Your task to perform on an android device: turn off wifi Image 0: 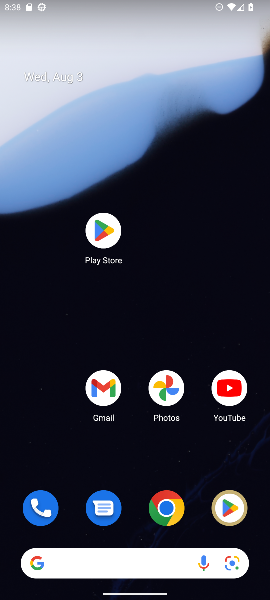
Step 0: drag from (143, 531) to (162, 84)
Your task to perform on an android device: turn off wifi Image 1: 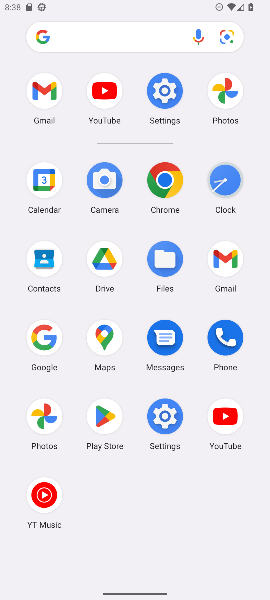
Step 1: click (207, 420)
Your task to perform on an android device: turn off wifi Image 2: 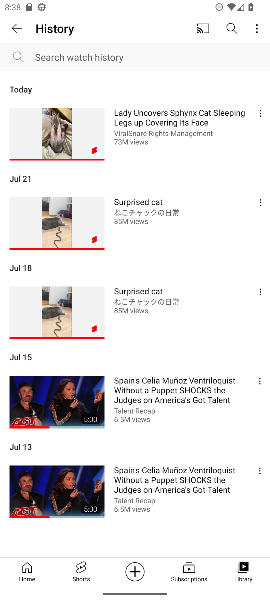
Step 2: press back button
Your task to perform on an android device: turn off wifi Image 3: 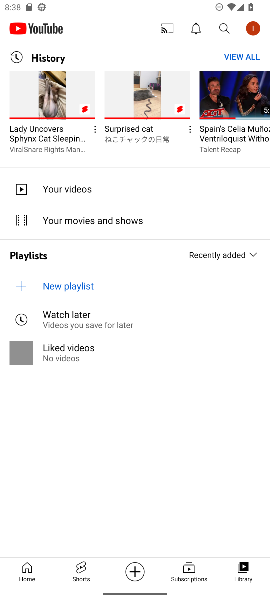
Step 3: press back button
Your task to perform on an android device: turn off wifi Image 4: 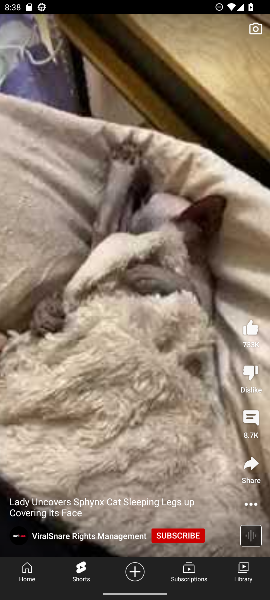
Step 4: press back button
Your task to perform on an android device: turn off wifi Image 5: 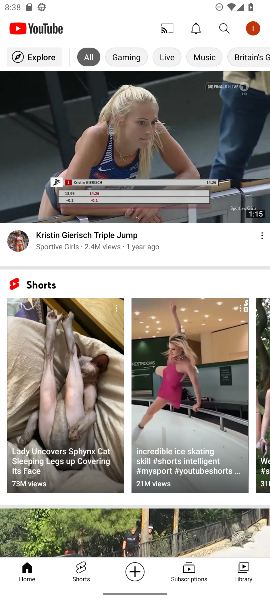
Step 5: press home button
Your task to perform on an android device: turn off wifi Image 6: 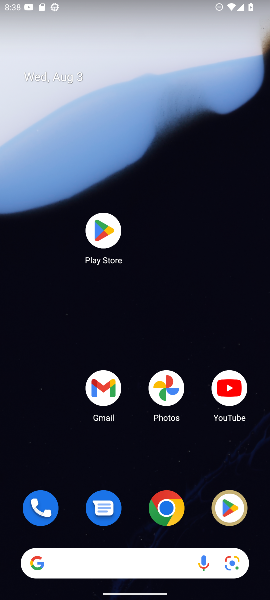
Step 6: drag from (127, 539) to (112, 55)
Your task to perform on an android device: turn off wifi Image 7: 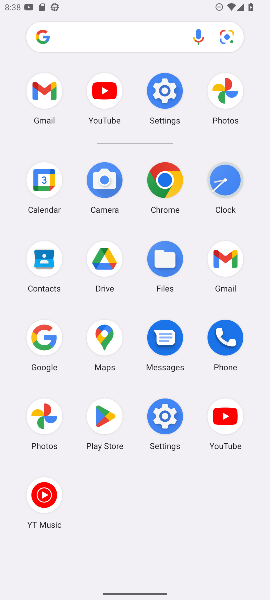
Step 7: click (156, 416)
Your task to perform on an android device: turn off wifi Image 8: 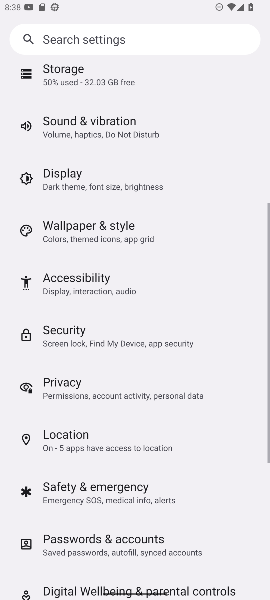
Step 8: drag from (105, 141) to (115, 492)
Your task to perform on an android device: turn off wifi Image 9: 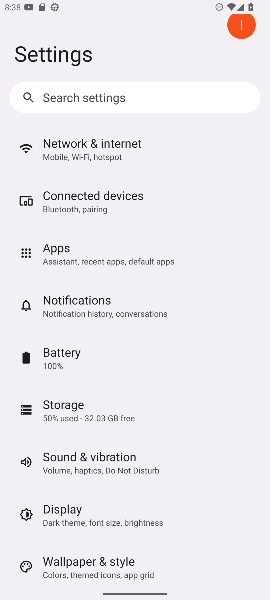
Step 9: click (89, 150)
Your task to perform on an android device: turn off wifi Image 10: 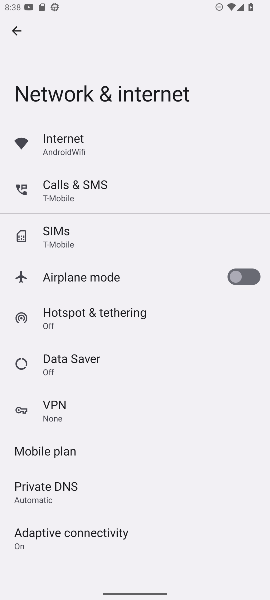
Step 10: click (33, 150)
Your task to perform on an android device: turn off wifi Image 11: 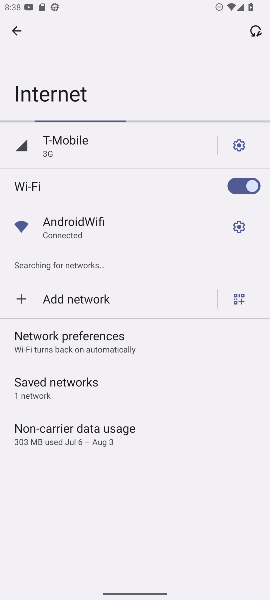
Step 11: click (227, 188)
Your task to perform on an android device: turn off wifi Image 12: 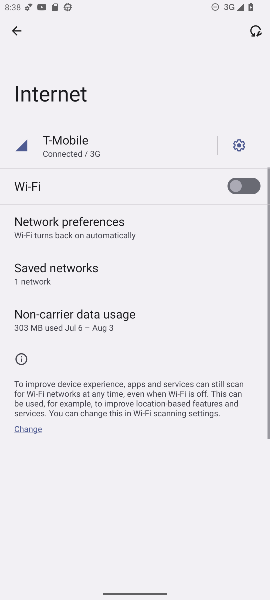
Step 12: task complete